Your task to perform on an android device: check battery use Image 0: 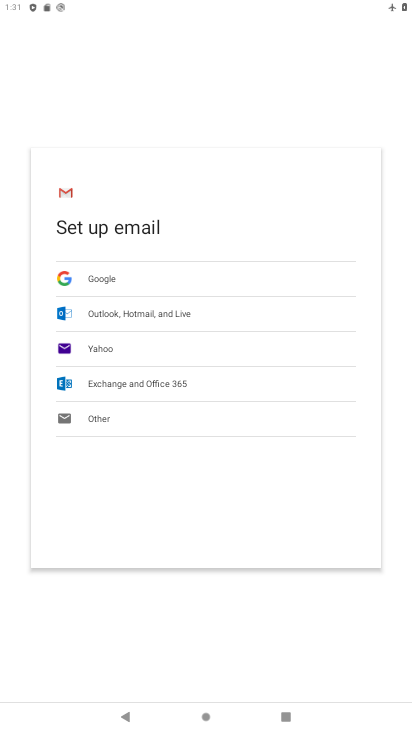
Step 0: press home button
Your task to perform on an android device: check battery use Image 1: 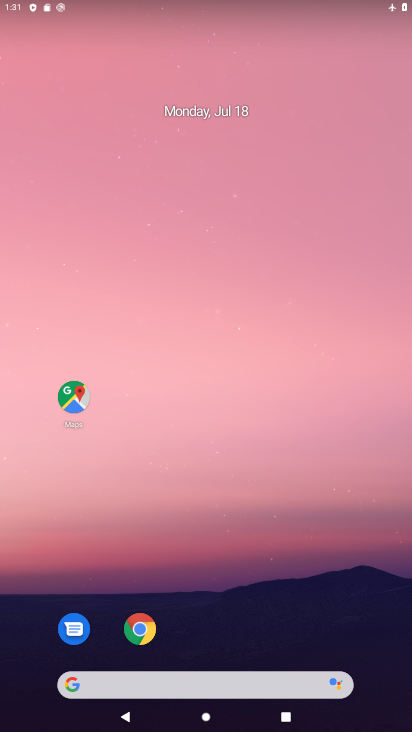
Step 1: drag from (248, 551) to (244, 203)
Your task to perform on an android device: check battery use Image 2: 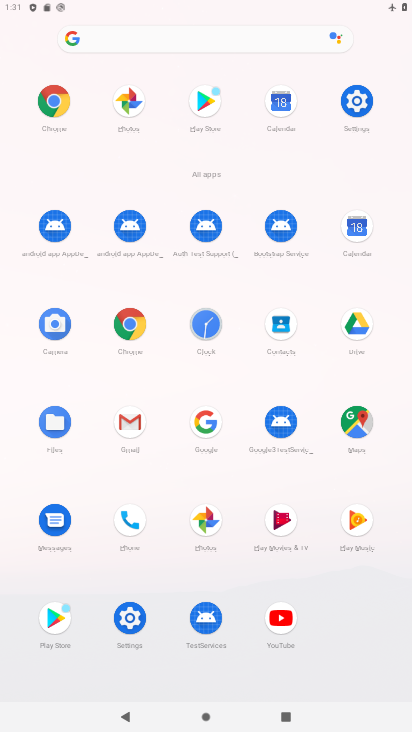
Step 2: click (357, 102)
Your task to perform on an android device: check battery use Image 3: 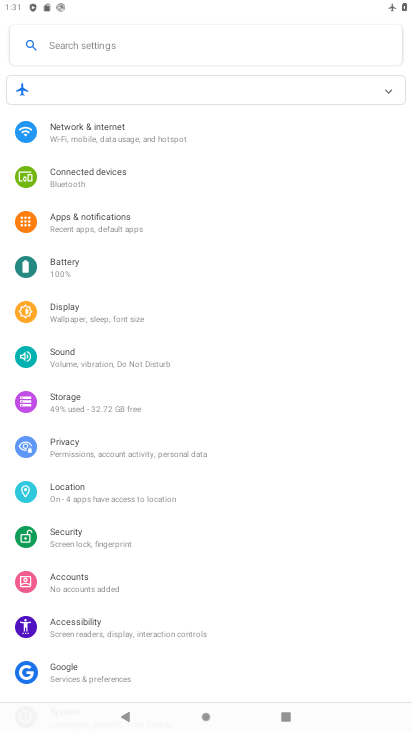
Step 3: click (80, 269)
Your task to perform on an android device: check battery use Image 4: 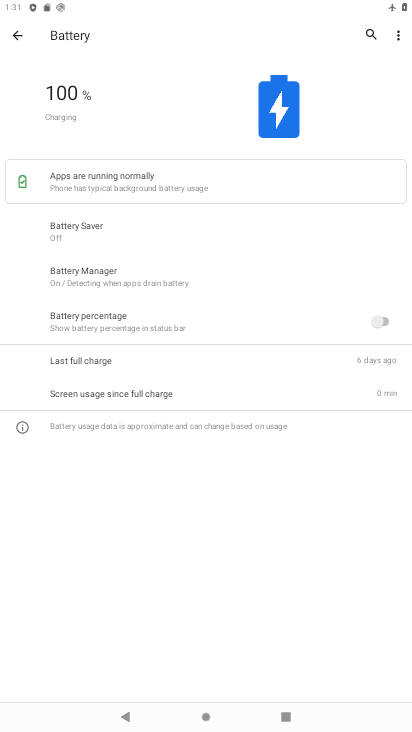
Step 4: task complete